Your task to perform on an android device: move a message to another label in the gmail app Image 0: 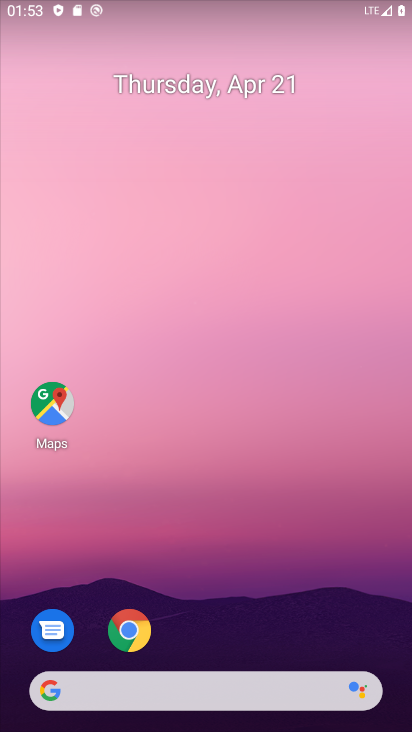
Step 0: drag from (278, 609) to (277, 233)
Your task to perform on an android device: move a message to another label in the gmail app Image 1: 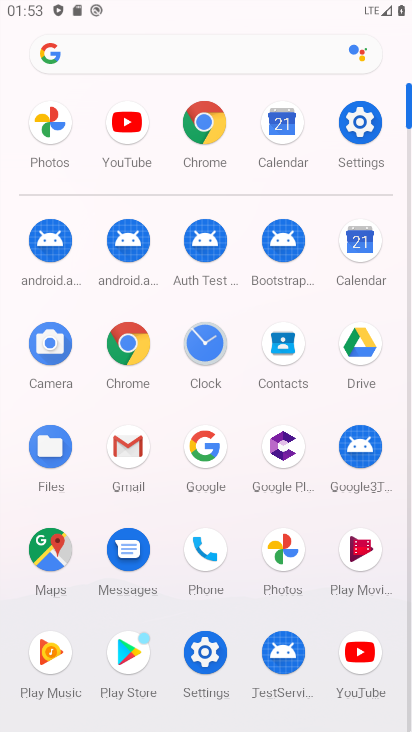
Step 1: click (123, 459)
Your task to perform on an android device: move a message to another label in the gmail app Image 2: 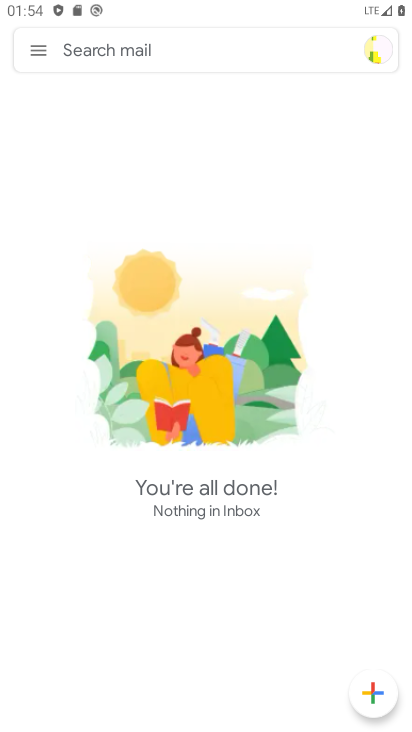
Step 2: click (42, 47)
Your task to perform on an android device: move a message to another label in the gmail app Image 3: 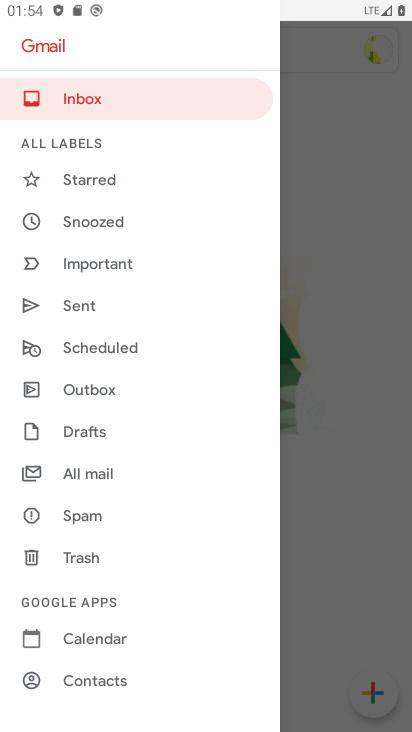
Step 3: click (83, 469)
Your task to perform on an android device: move a message to another label in the gmail app Image 4: 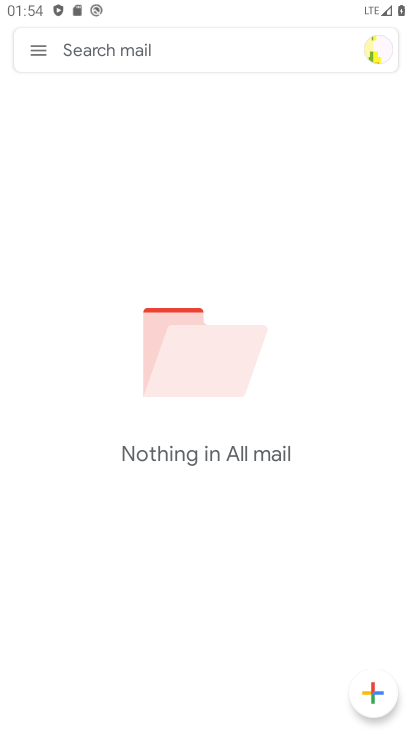
Step 4: task complete